Your task to perform on an android device: Show me the alarms in the clock app Image 0: 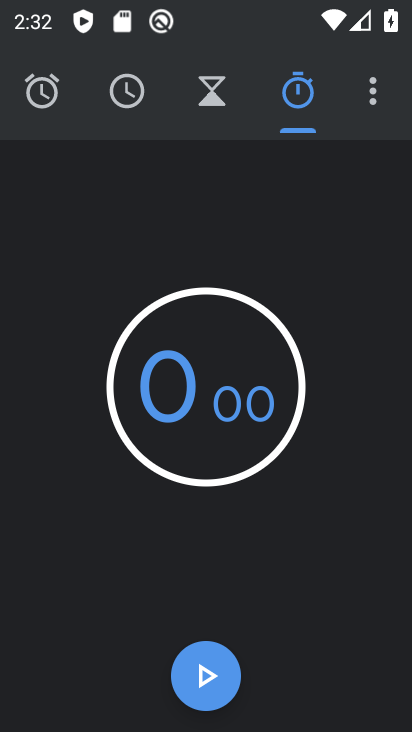
Step 0: click (38, 84)
Your task to perform on an android device: Show me the alarms in the clock app Image 1: 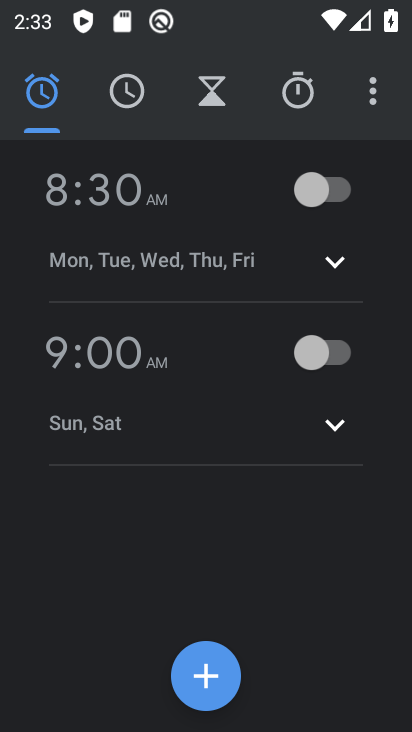
Step 1: task complete